Your task to perform on an android device: turn on translation in the chrome app Image 0: 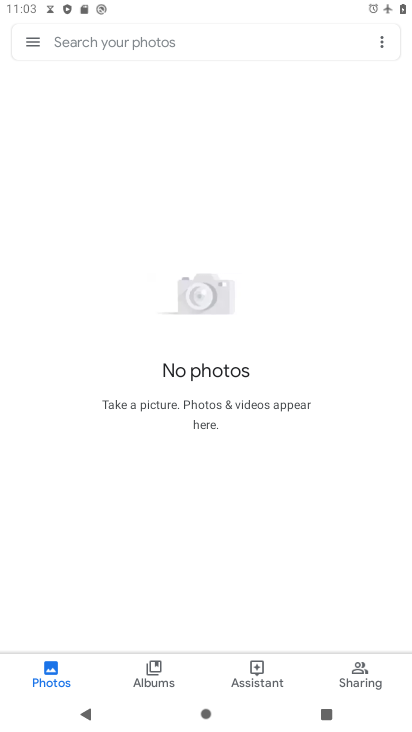
Step 0: press home button
Your task to perform on an android device: turn on translation in the chrome app Image 1: 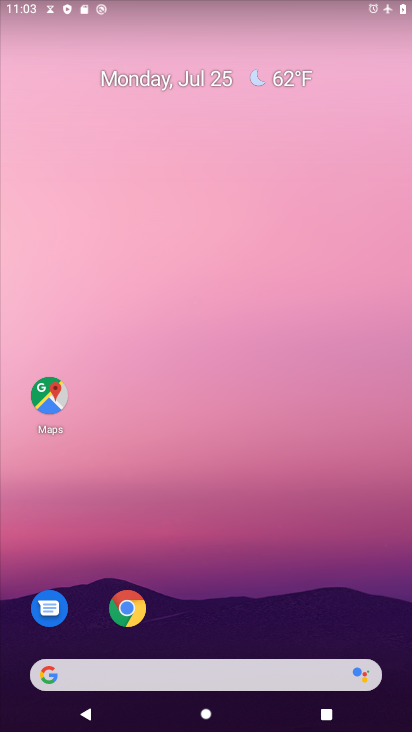
Step 1: click (126, 608)
Your task to perform on an android device: turn on translation in the chrome app Image 2: 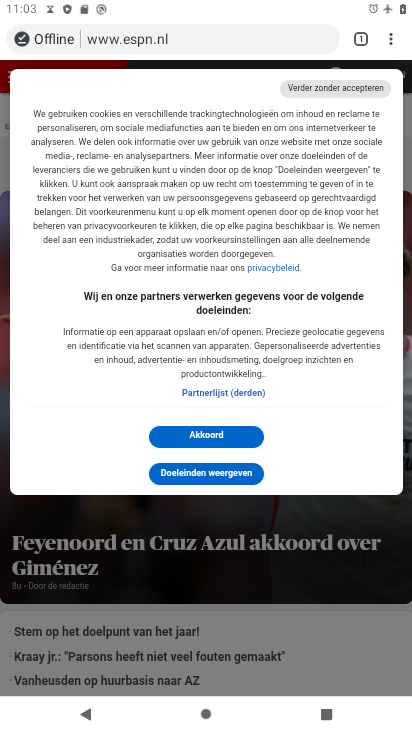
Step 2: click (389, 35)
Your task to perform on an android device: turn on translation in the chrome app Image 3: 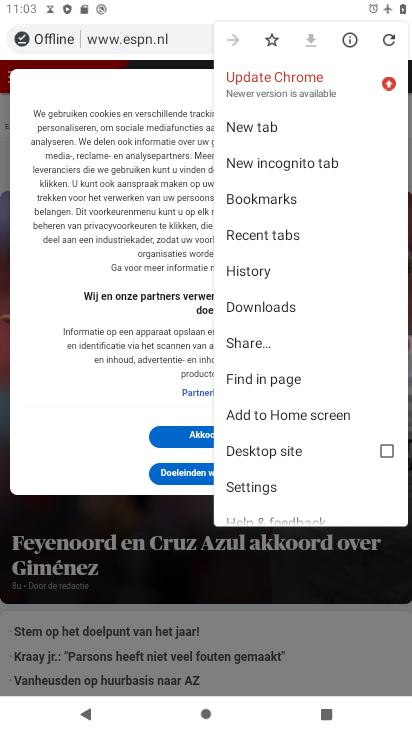
Step 3: click (250, 485)
Your task to perform on an android device: turn on translation in the chrome app Image 4: 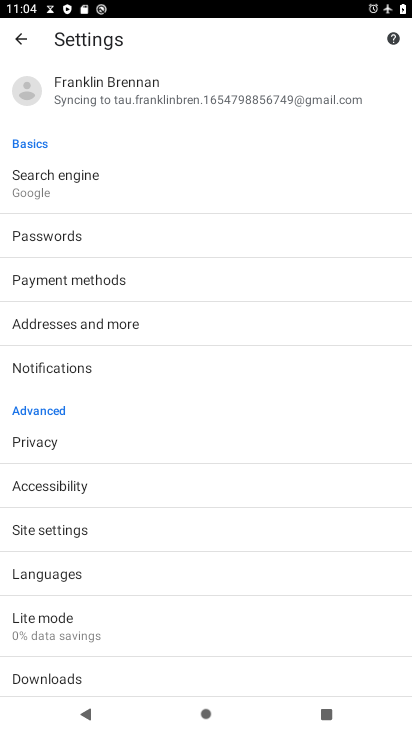
Step 4: click (61, 576)
Your task to perform on an android device: turn on translation in the chrome app Image 5: 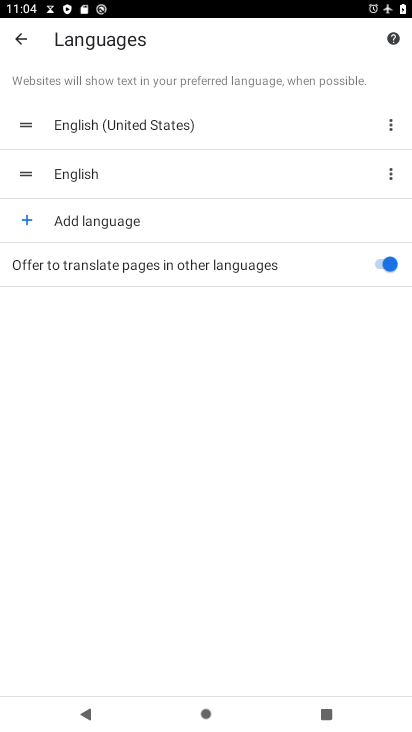
Step 5: task complete